Your task to perform on an android device: open app "eBay: The shopping marketplace" Image 0: 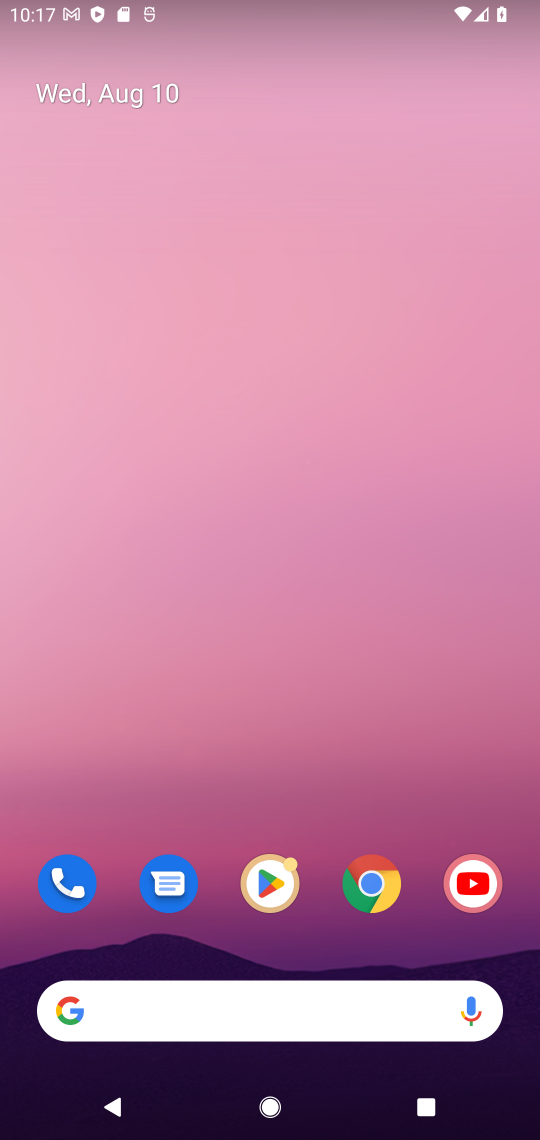
Step 0: drag from (316, 955) to (309, 42)
Your task to perform on an android device: open app "eBay: The shopping marketplace" Image 1: 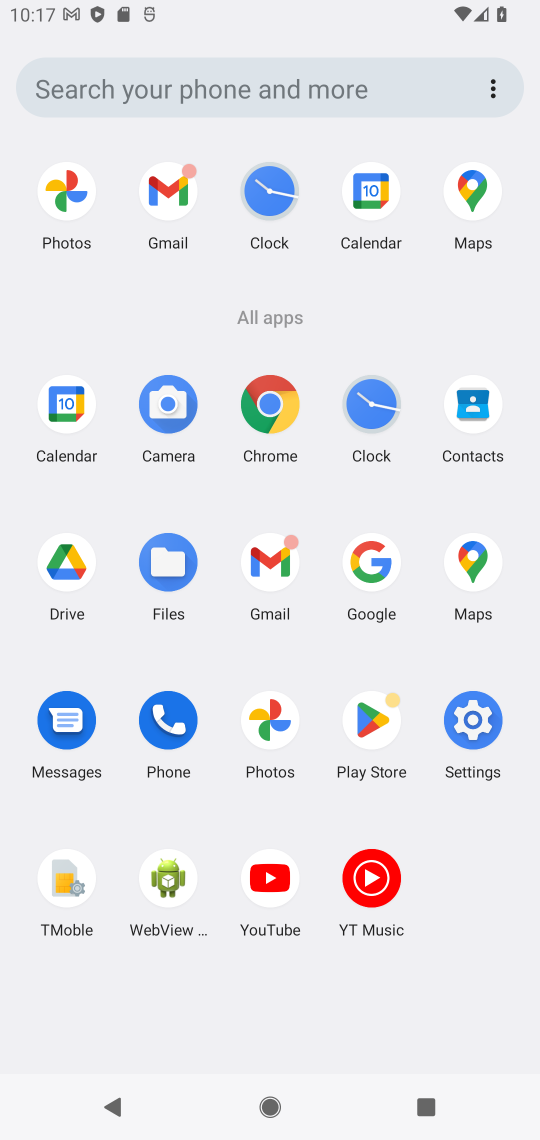
Step 1: click (360, 716)
Your task to perform on an android device: open app "eBay: The shopping marketplace" Image 2: 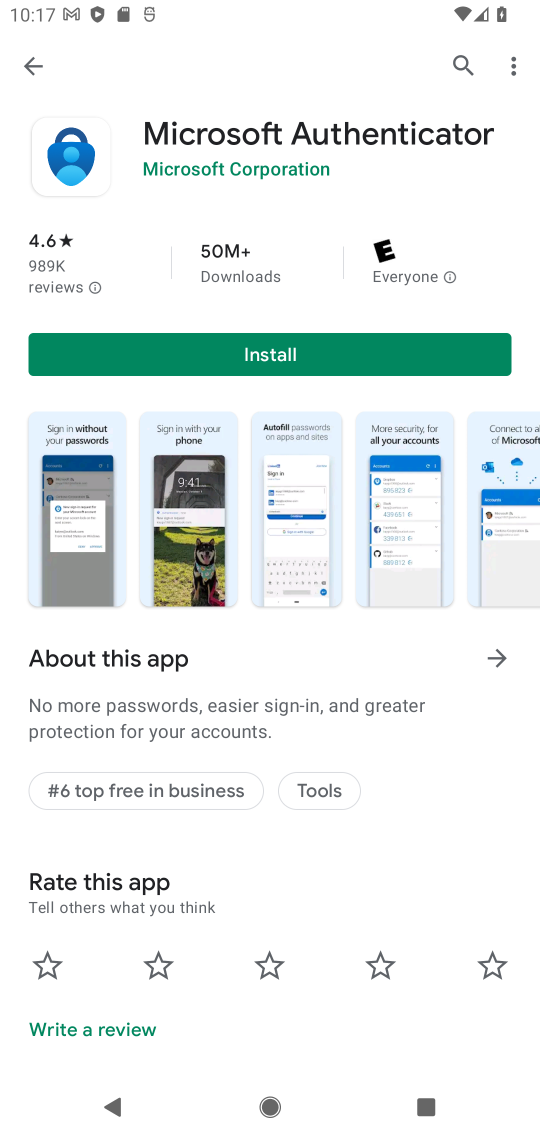
Step 2: click (462, 55)
Your task to perform on an android device: open app "eBay: The shopping marketplace" Image 3: 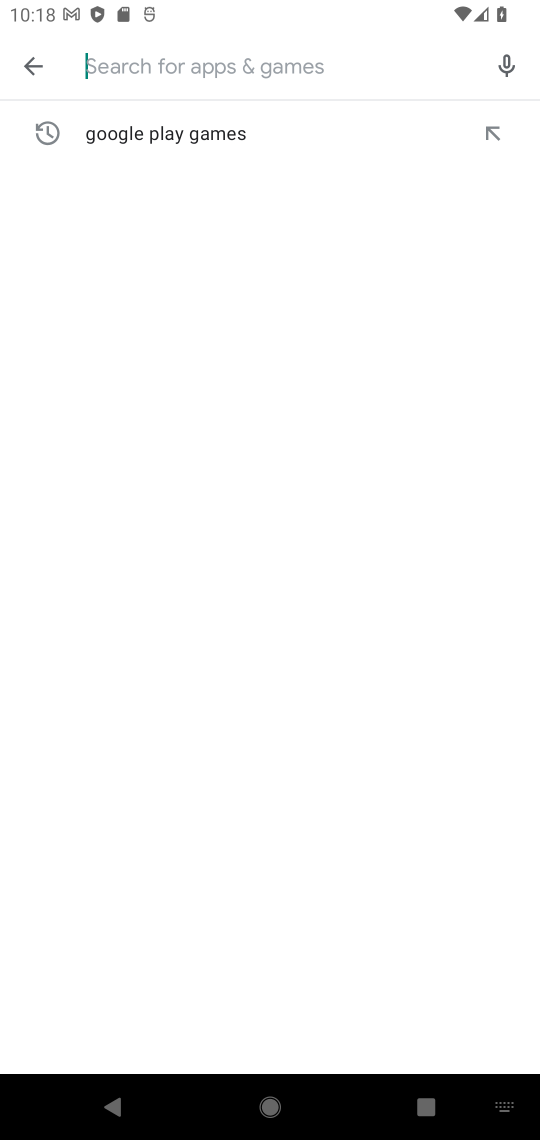
Step 3: type "eBay: The shopping marketplace"
Your task to perform on an android device: open app "eBay: The shopping marketplace" Image 4: 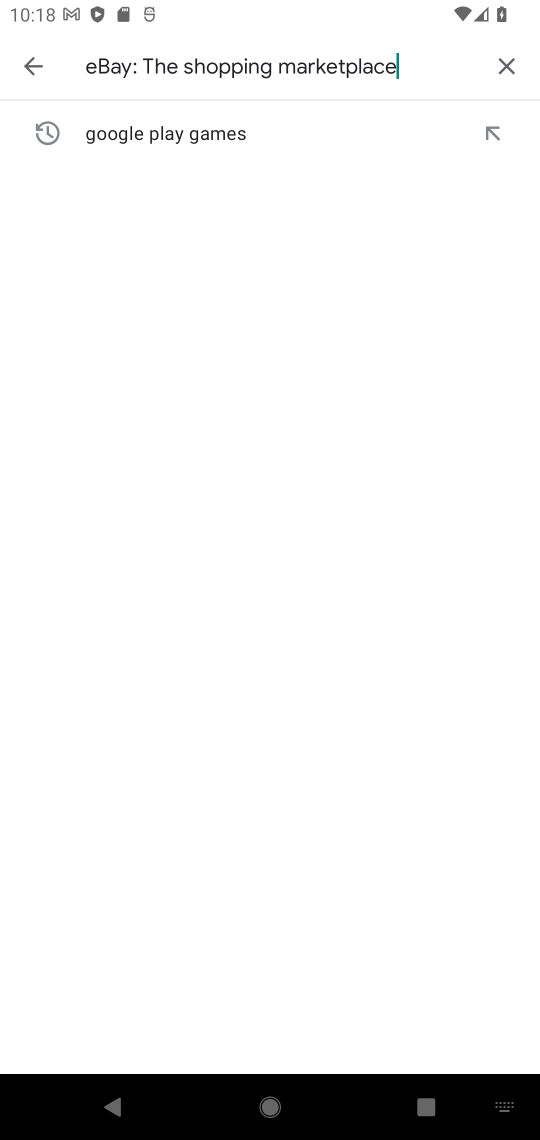
Step 4: type ""
Your task to perform on an android device: open app "eBay: The shopping marketplace" Image 5: 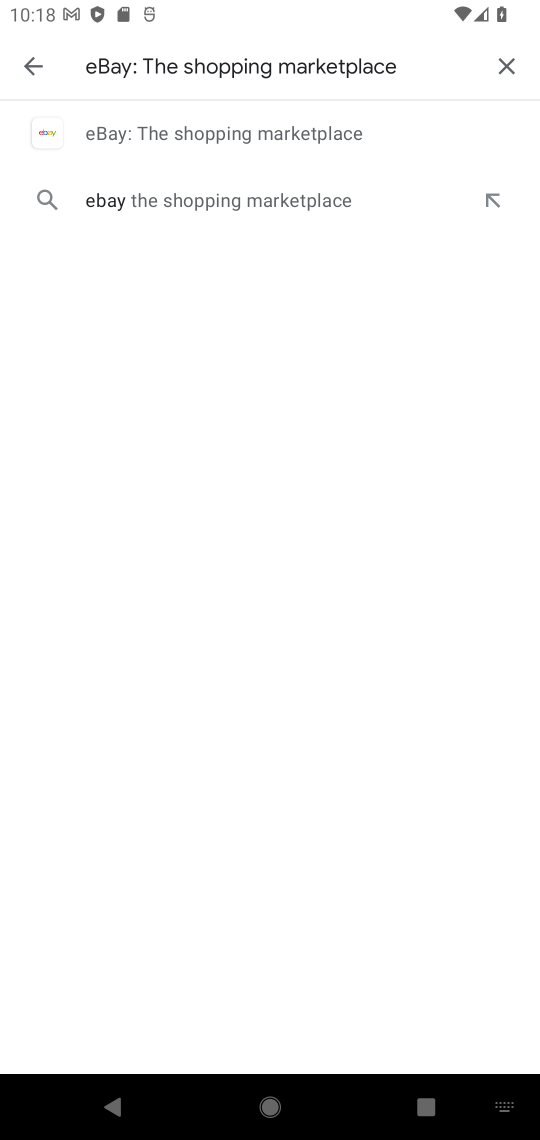
Step 5: click (304, 134)
Your task to perform on an android device: open app "eBay: The shopping marketplace" Image 6: 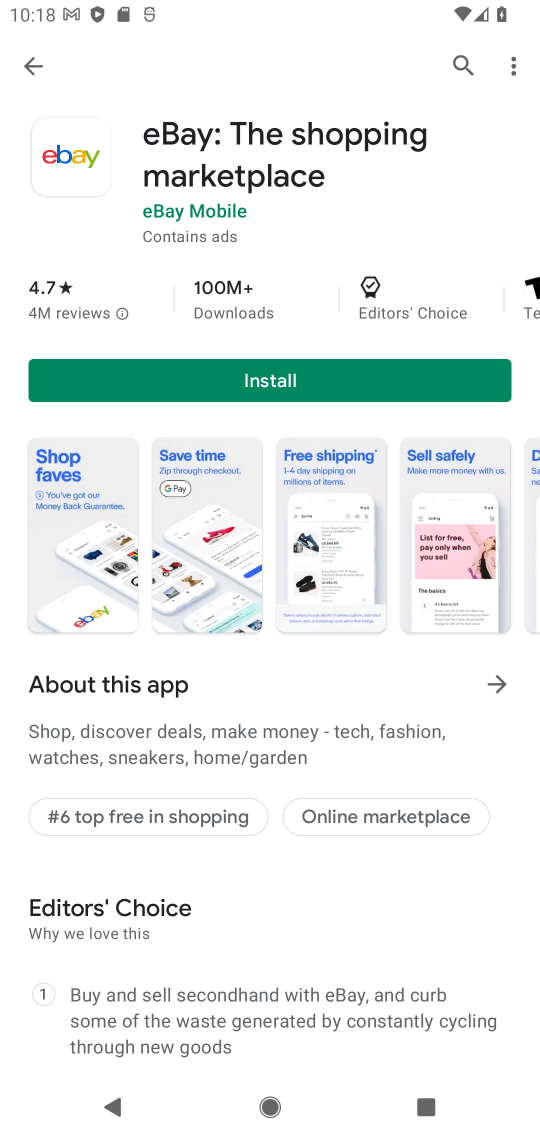
Step 6: click (323, 393)
Your task to perform on an android device: open app "eBay: The shopping marketplace" Image 7: 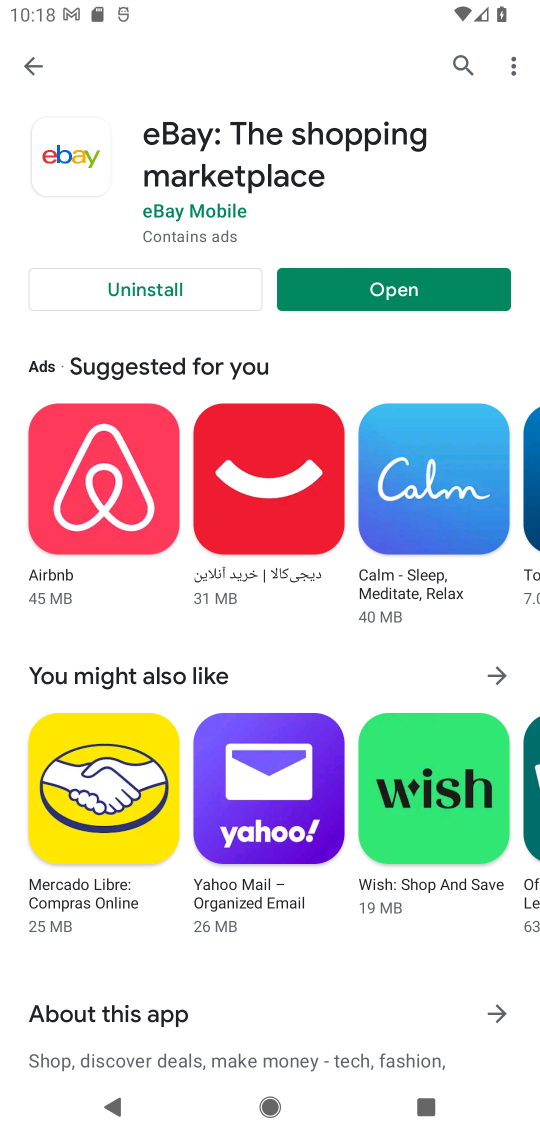
Step 7: click (405, 300)
Your task to perform on an android device: open app "eBay: The shopping marketplace" Image 8: 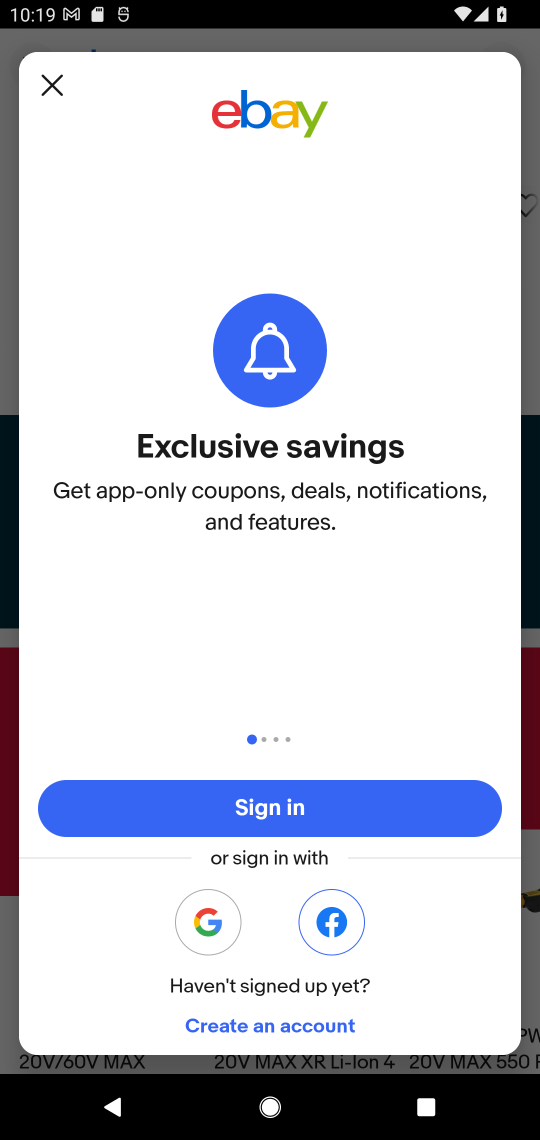
Step 8: press home button
Your task to perform on an android device: open app "eBay: The shopping marketplace" Image 9: 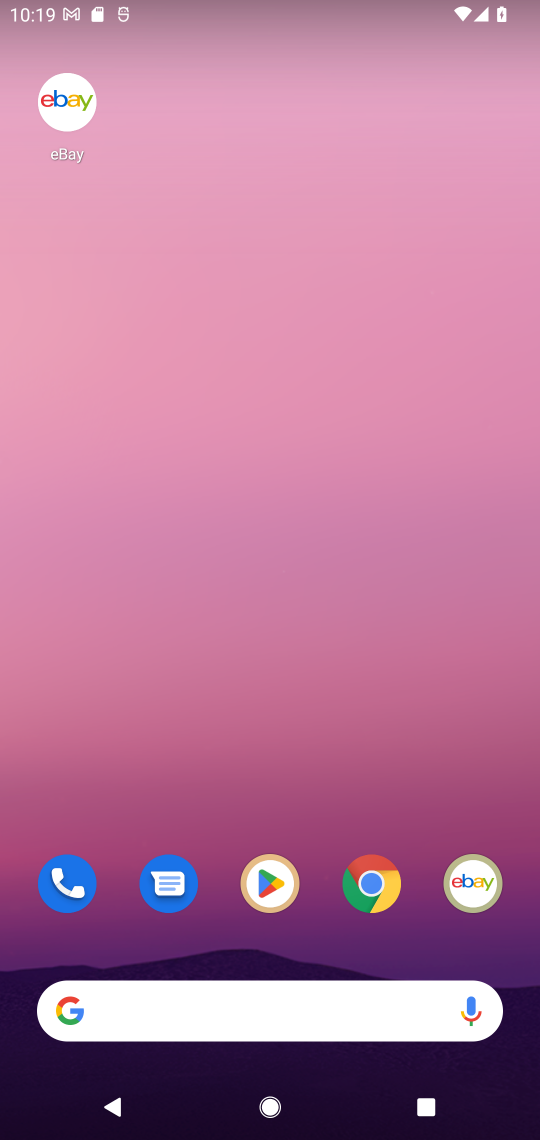
Step 9: drag from (261, 839) to (256, 42)
Your task to perform on an android device: open app "eBay: The shopping marketplace" Image 10: 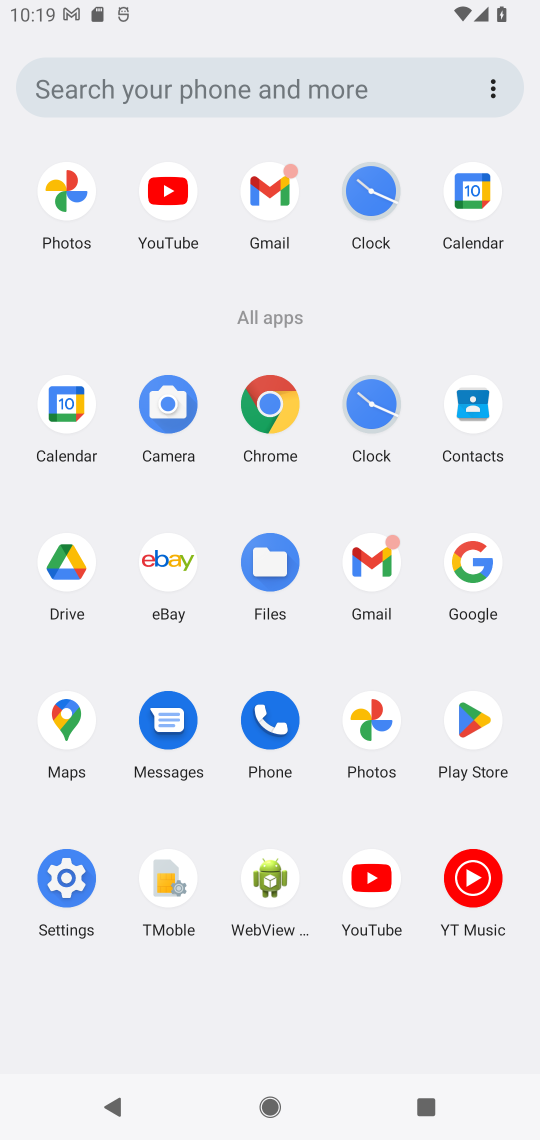
Step 10: click (472, 722)
Your task to perform on an android device: open app "eBay: The shopping marketplace" Image 11: 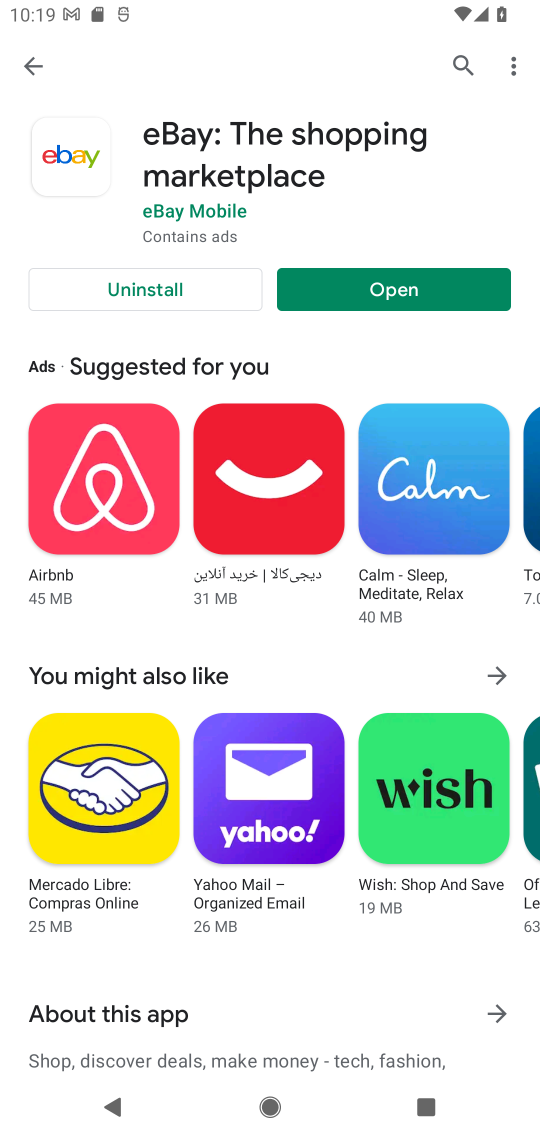
Step 11: click (410, 297)
Your task to perform on an android device: open app "eBay: The shopping marketplace" Image 12: 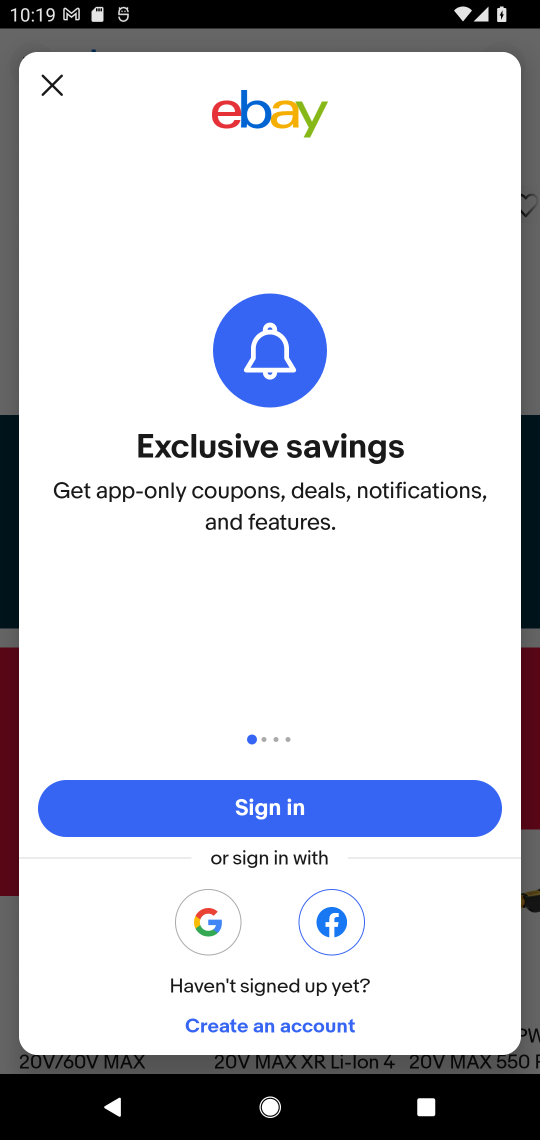
Step 12: task complete